Your task to perform on an android device: How big is a dinosaur? Image 0: 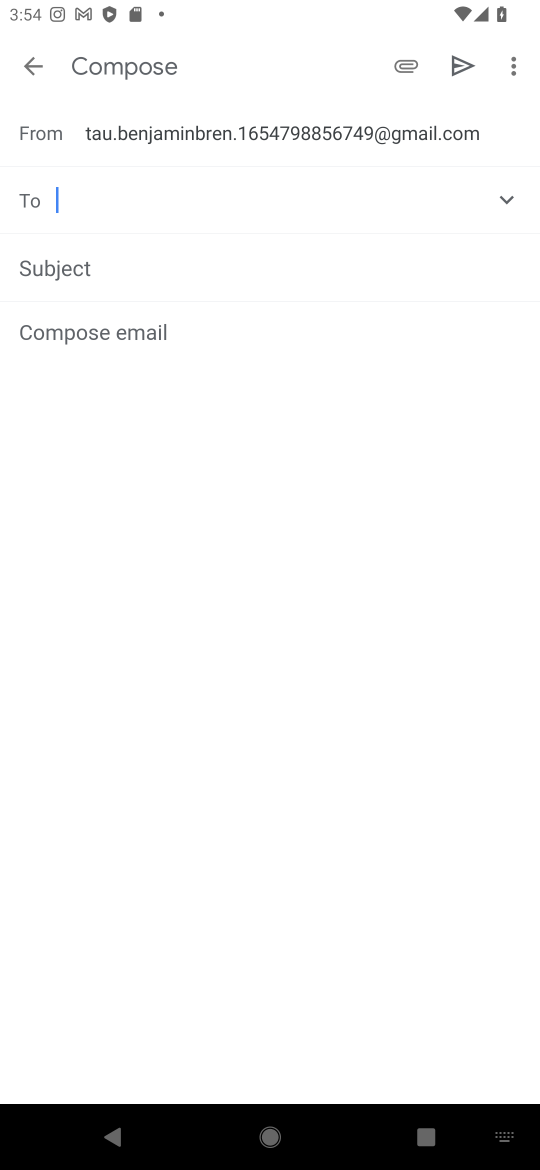
Step 0: press home button
Your task to perform on an android device: How big is a dinosaur? Image 1: 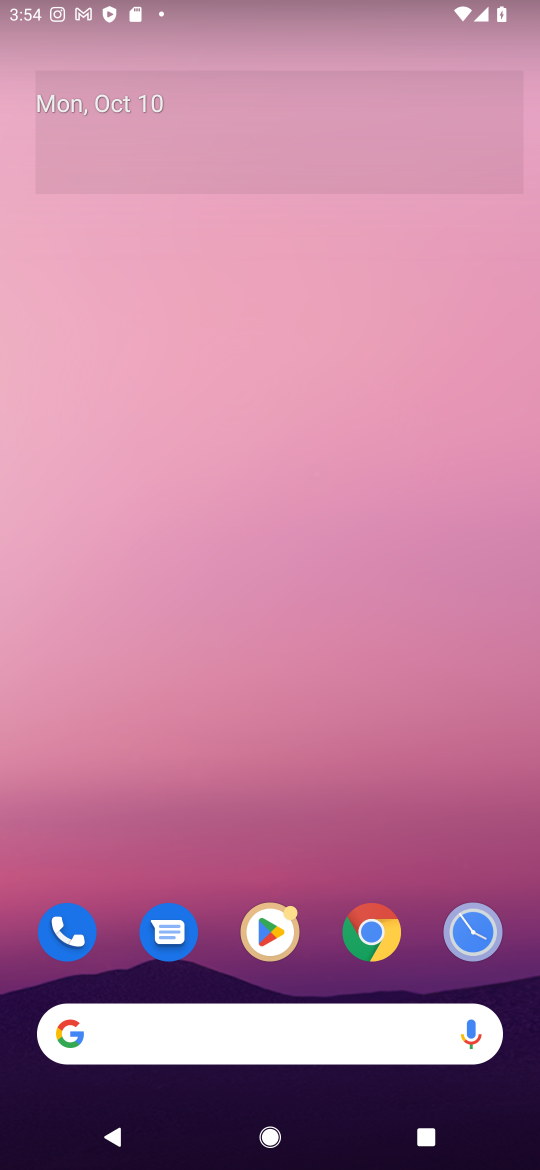
Step 1: click (341, 1021)
Your task to perform on an android device: How big is a dinosaur? Image 2: 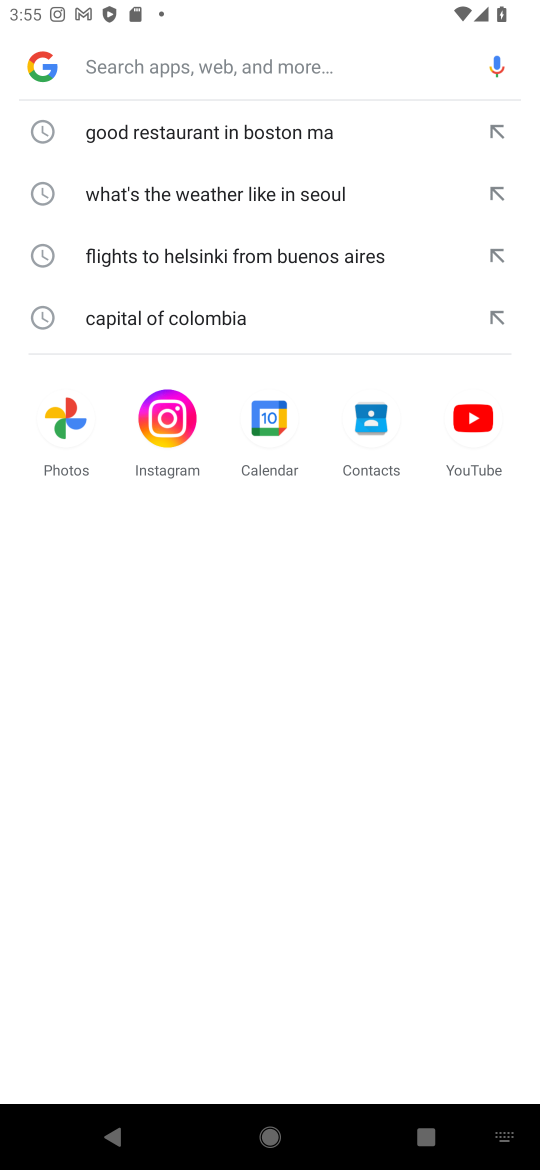
Step 2: type "How big is a dinosaur"
Your task to perform on an android device: How big is a dinosaur? Image 3: 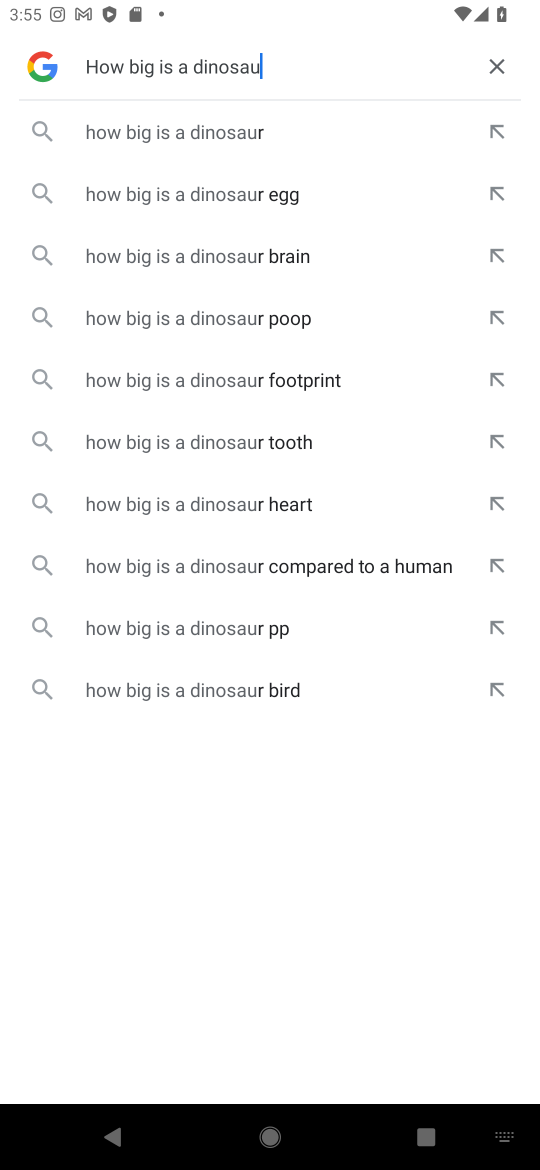
Step 3: press enter
Your task to perform on an android device: How big is a dinosaur? Image 4: 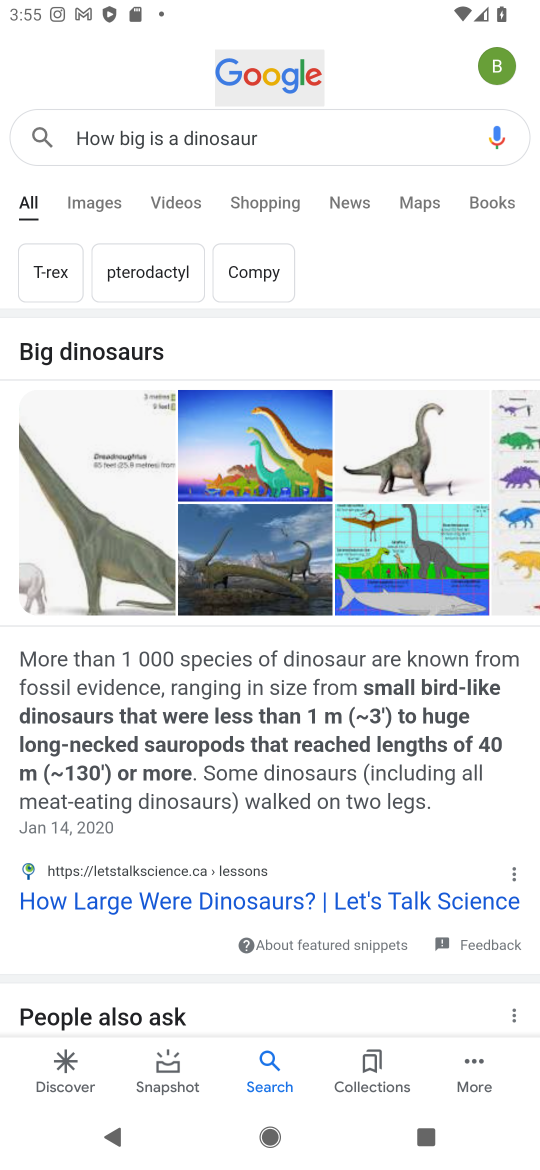
Step 4: task complete